Your task to perform on an android device: set an alarm Image 0: 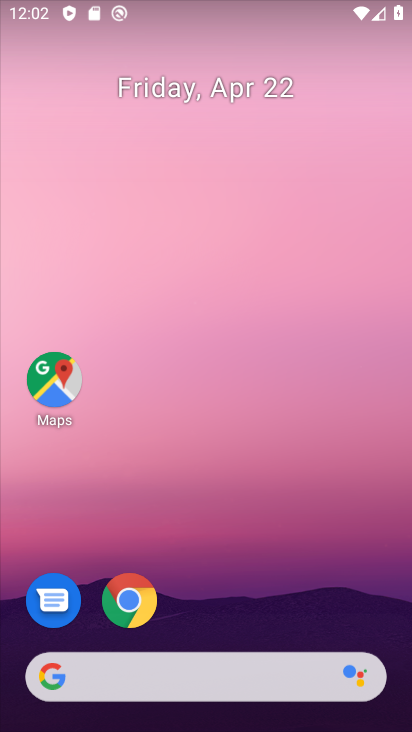
Step 0: drag from (275, 525) to (262, 35)
Your task to perform on an android device: set an alarm Image 1: 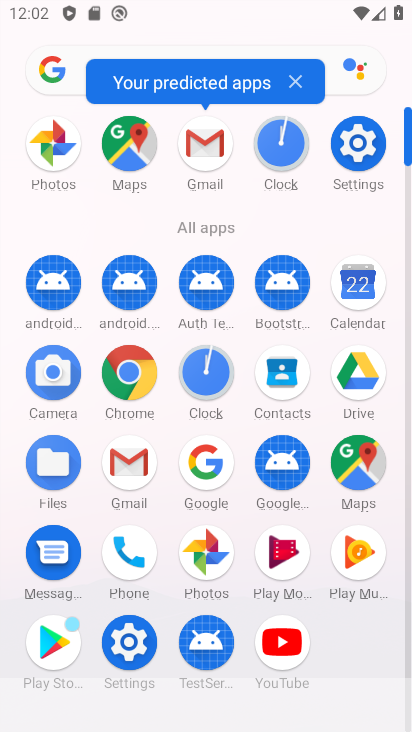
Step 1: click (282, 143)
Your task to perform on an android device: set an alarm Image 2: 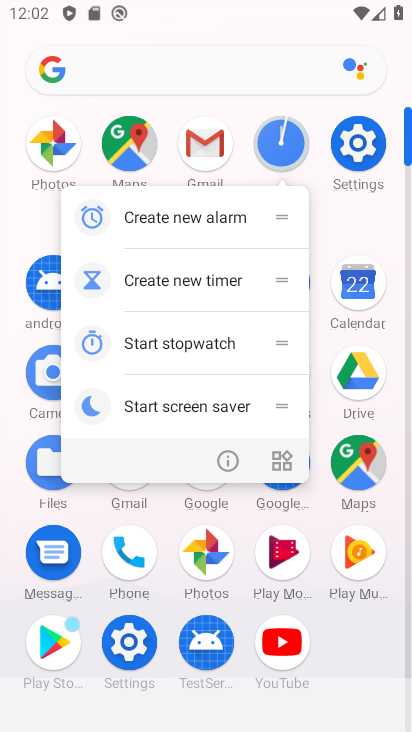
Step 2: click (282, 143)
Your task to perform on an android device: set an alarm Image 3: 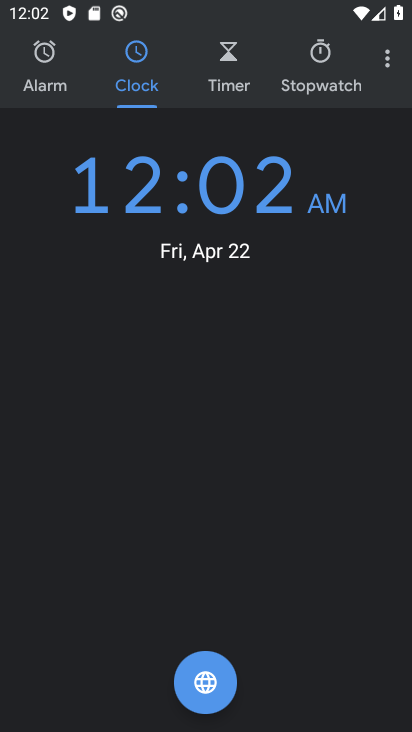
Step 3: click (50, 52)
Your task to perform on an android device: set an alarm Image 4: 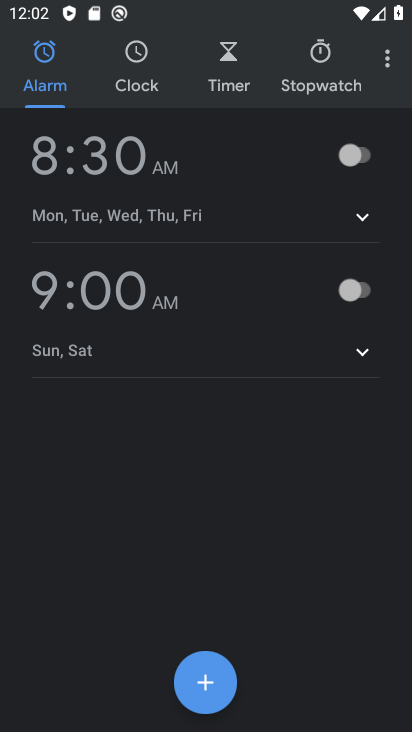
Step 4: click (206, 683)
Your task to perform on an android device: set an alarm Image 5: 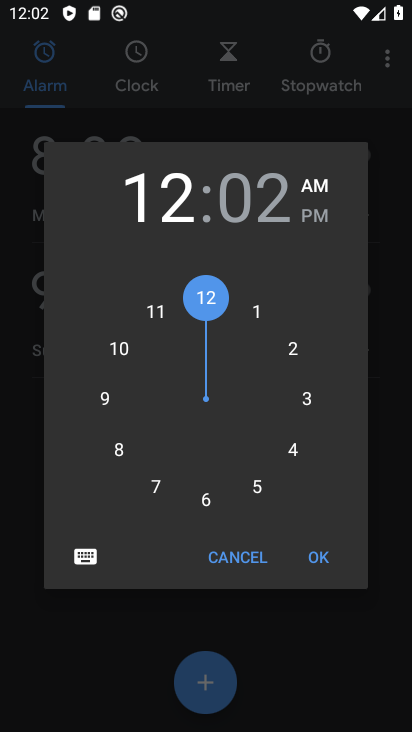
Step 5: click (306, 403)
Your task to perform on an android device: set an alarm Image 6: 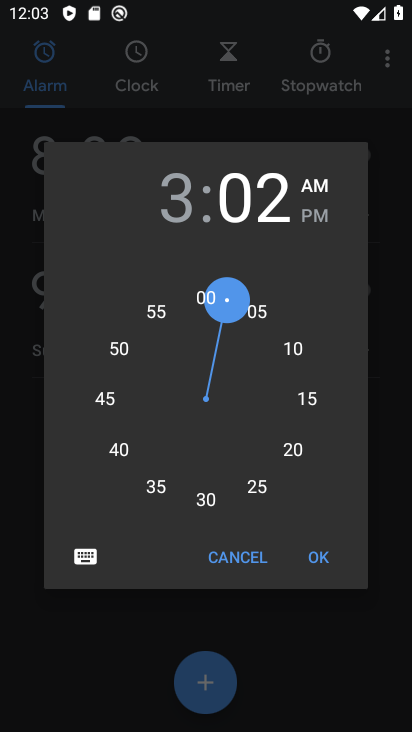
Step 6: click (157, 312)
Your task to perform on an android device: set an alarm Image 7: 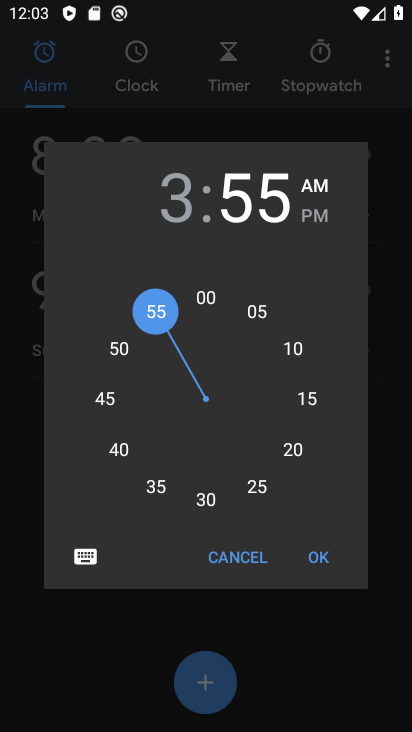
Step 7: click (315, 220)
Your task to perform on an android device: set an alarm Image 8: 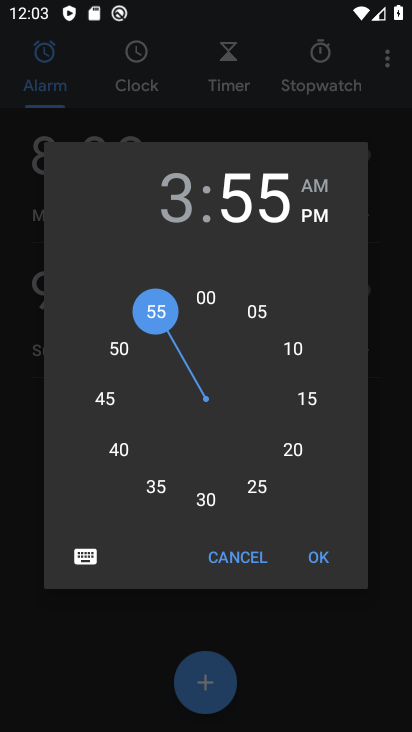
Step 8: click (315, 557)
Your task to perform on an android device: set an alarm Image 9: 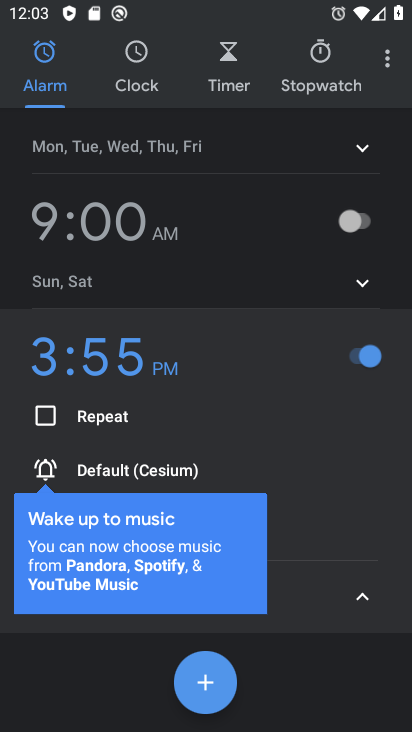
Step 9: click (358, 594)
Your task to perform on an android device: set an alarm Image 10: 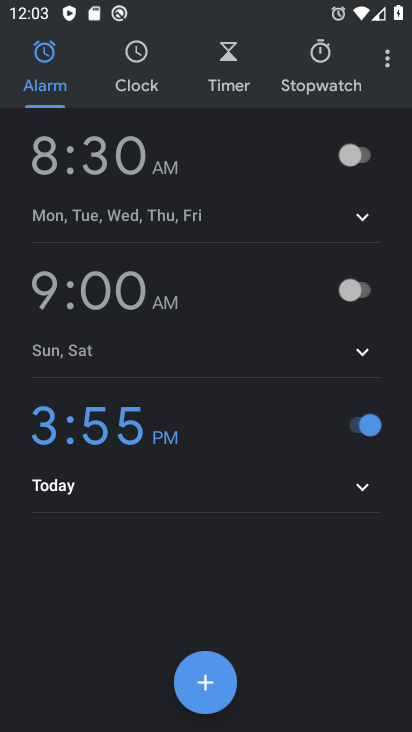
Step 10: task complete